Your task to perform on an android device: change notifications settings Image 0: 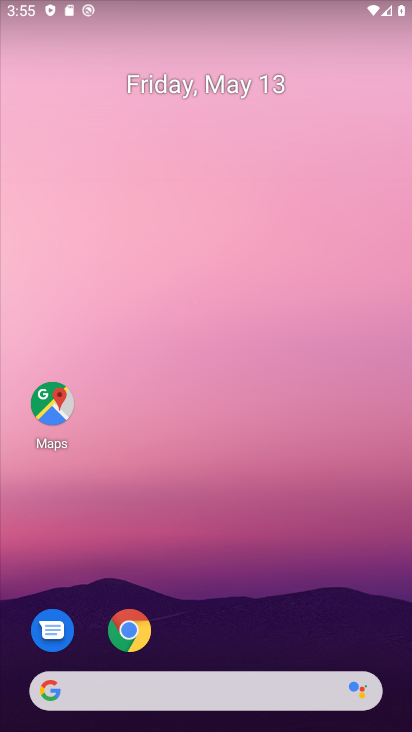
Step 0: drag from (257, 573) to (317, 134)
Your task to perform on an android device: change notifications settings Image 1: 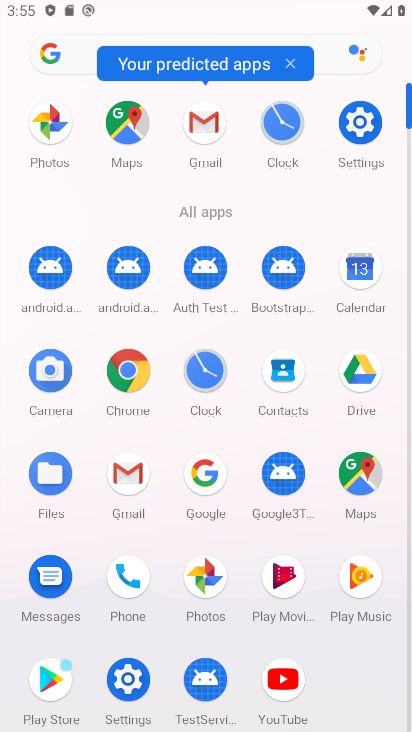
Step 1: click (356, 133)
Your task to perform on an android device: change notifications settings Image 2: 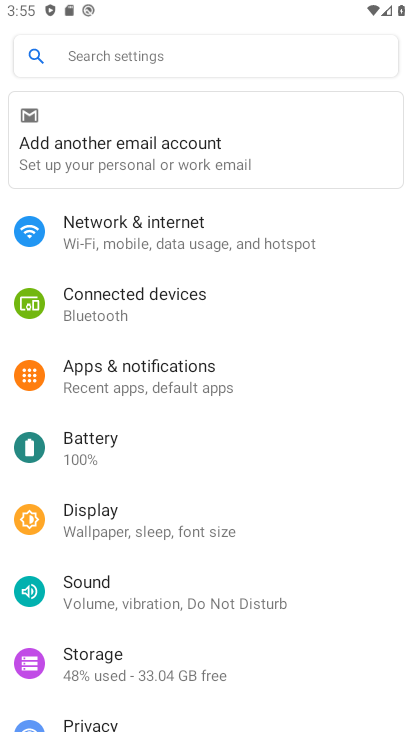
Step 2: click (152, 378)
Your task to perform on an android device: change notifications settings Image 3: 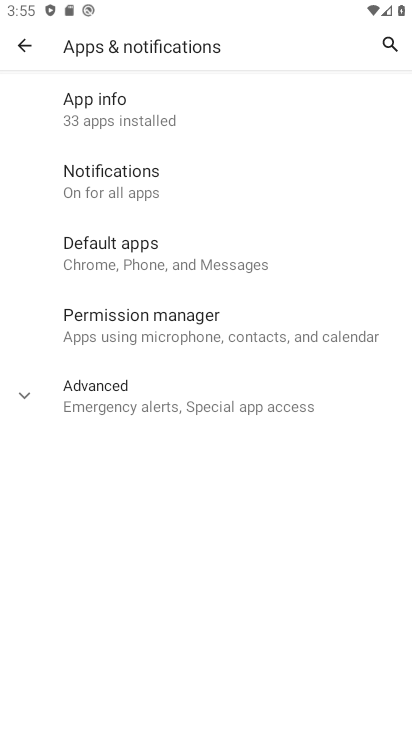
Step 3: click (118, 181)
Your task to perform on an android device: change notifications settings Image 4: 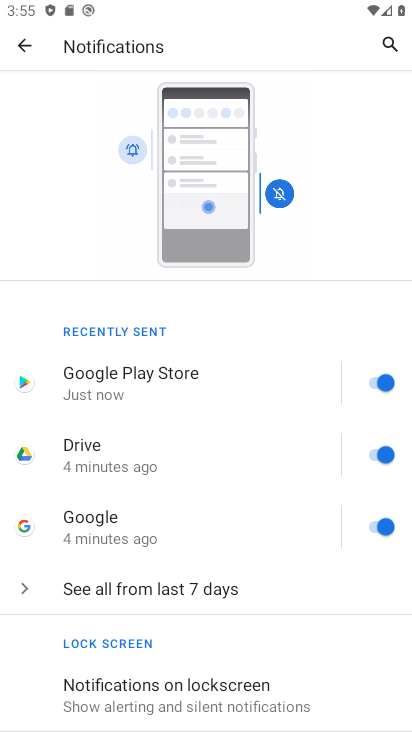
Step 4: drag from (200, 672) to (243, 171)
Your task to perform on an android device: change notifications settings Image 5: 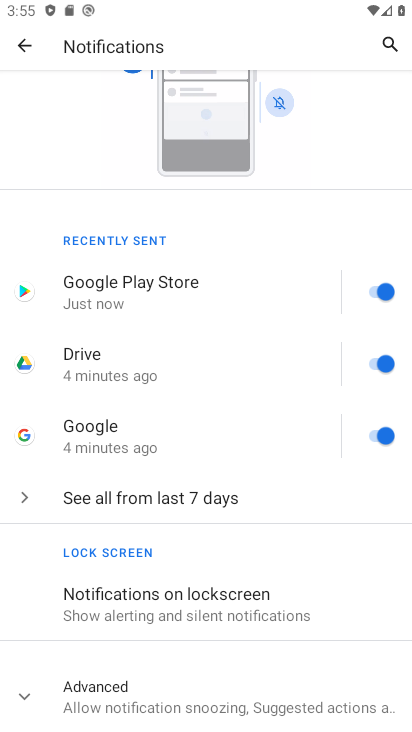
Step 5: click (70, 689)
Your task to perform on an android device: change notifications settings Image 6: 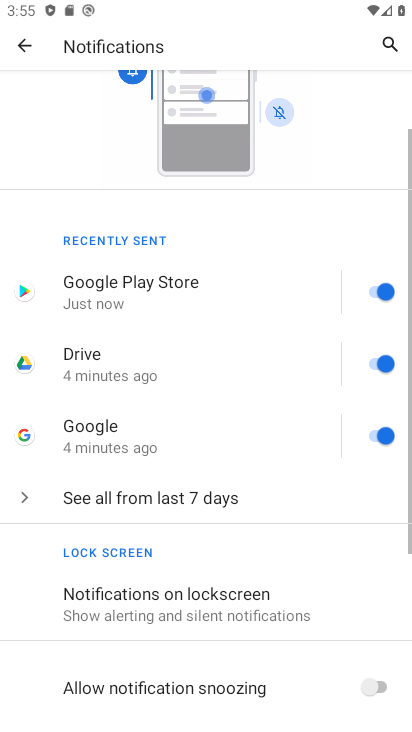
Step 6: drag from (181, 654) to (260, 137)
Your task to perform on an android device: change notifications settings Image 7: 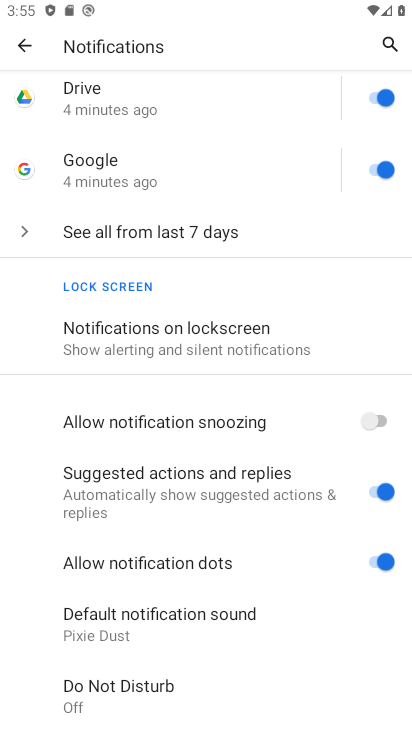
Step 7: click (383, 407)
Your task to perform on an android device: change notifications settings Image 8: 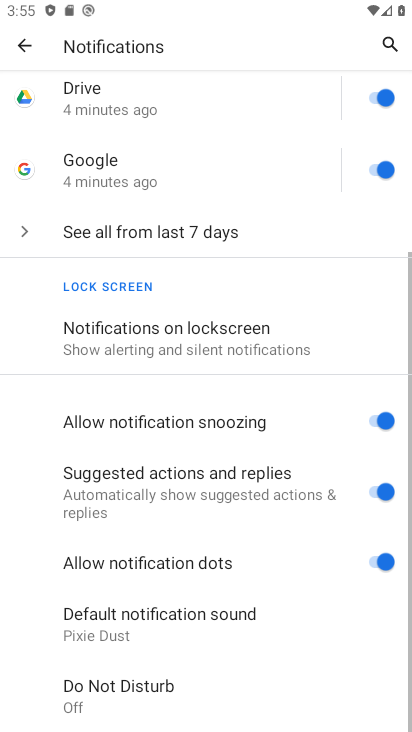
Step 8: task complete